Your task to perform on an android device: Go to notification settings Image 0: 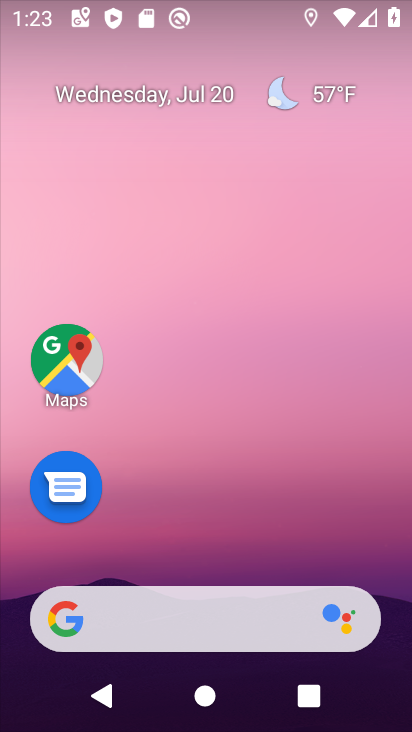
Step 0: drag from (228, 427) to (300, 15)
Your task to perform on an android device: Go to notification settings Image 1: 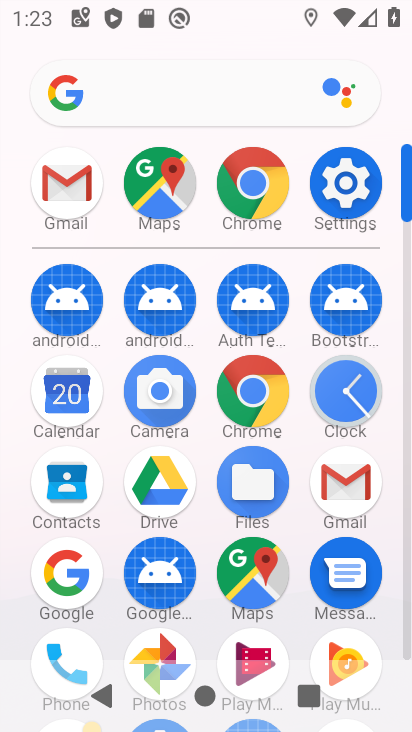
Step 1: click (345, 188)
Your task to perform on an android device: Go to notification settings Image 2: 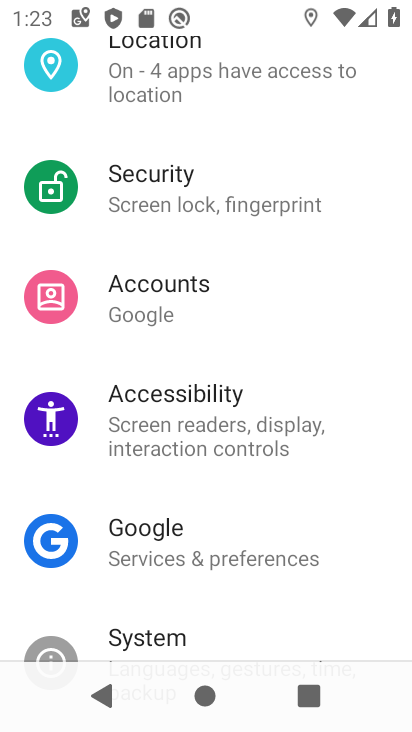
Step 2: drag from (200, 253) to (177, 700)
Your task to perform on an android device: Go to notification settings Image 3: 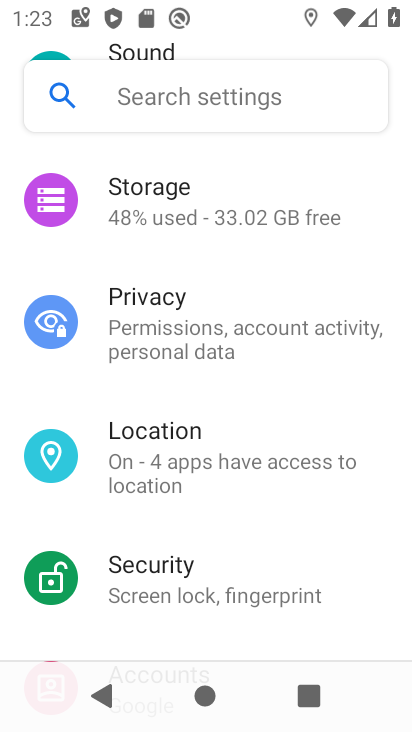
Step 3: drag from (162, 181) to (205, 729)
Your task to perform on an android device: Go to notification settings Image 4: 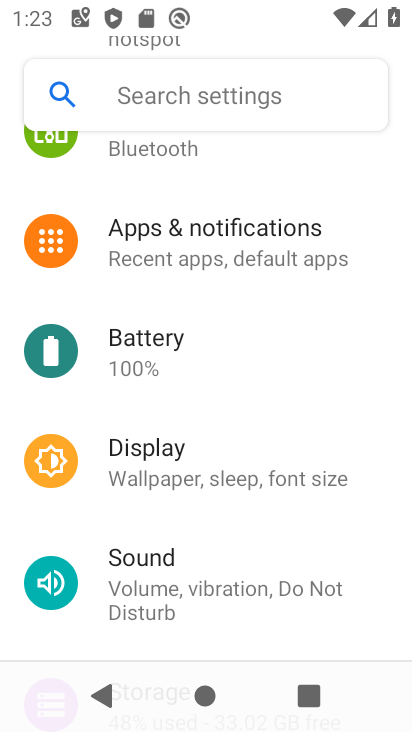
Step 4: click (201, 239)
Your task to perform on an android device: Go to notification settings Image 5: 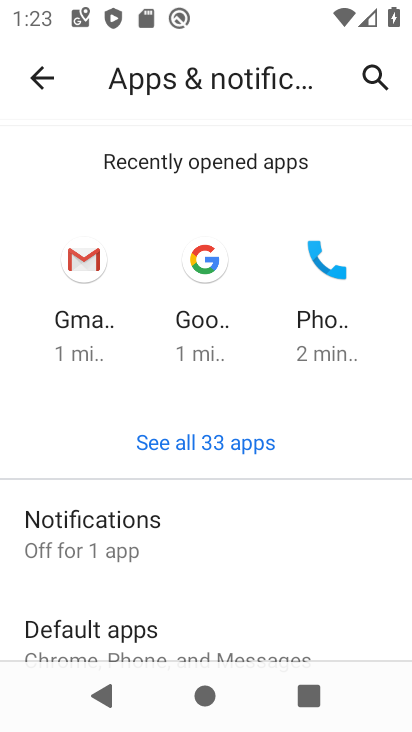
Step 5: click (84, 525)
Your task to perform on an android device: Go to notification settings Image 6: 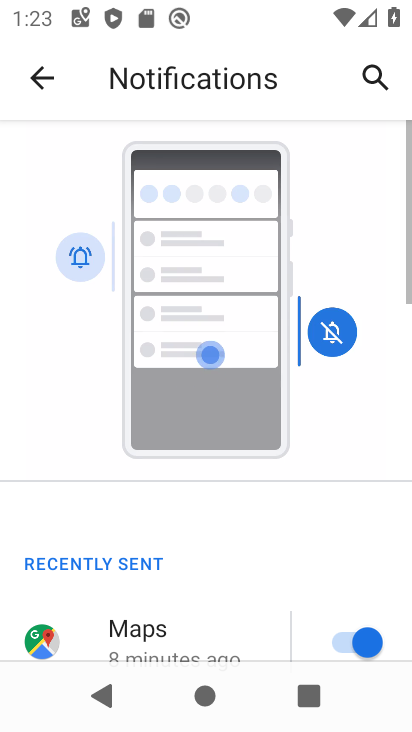
Step 6: drag from (163, 575) to (222, 37)
Your task to perform on an android device: Go to notification settings Image 7: 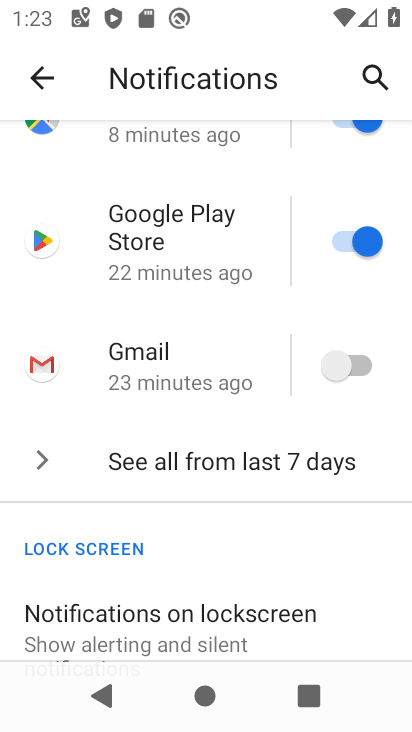
Step 7: drag from (165, 615) to (272, 98)
Your task to perform on an android device: Go to notification settings Image 8: 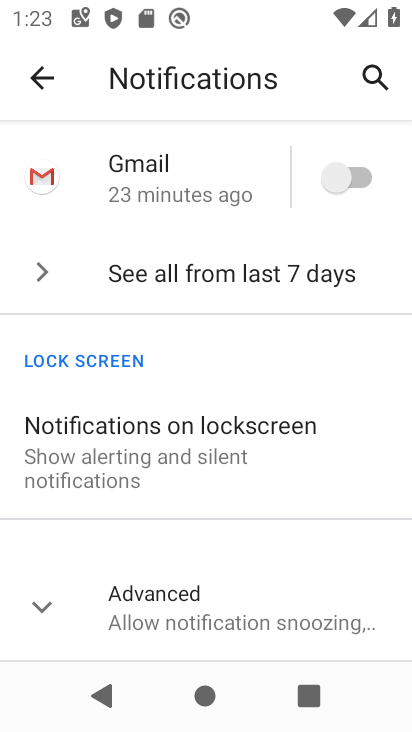
Step 8: click (193, 599)
Your task to perform on an android device: Go to notification settings Image 9: 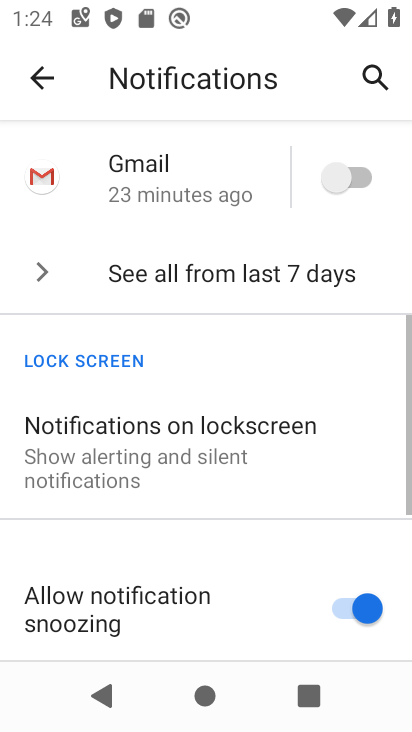
Step 9: task complete